Your task to perform on an android device: uninstall "Adobe Acrobat Reader: Edit PDF" Image 0: 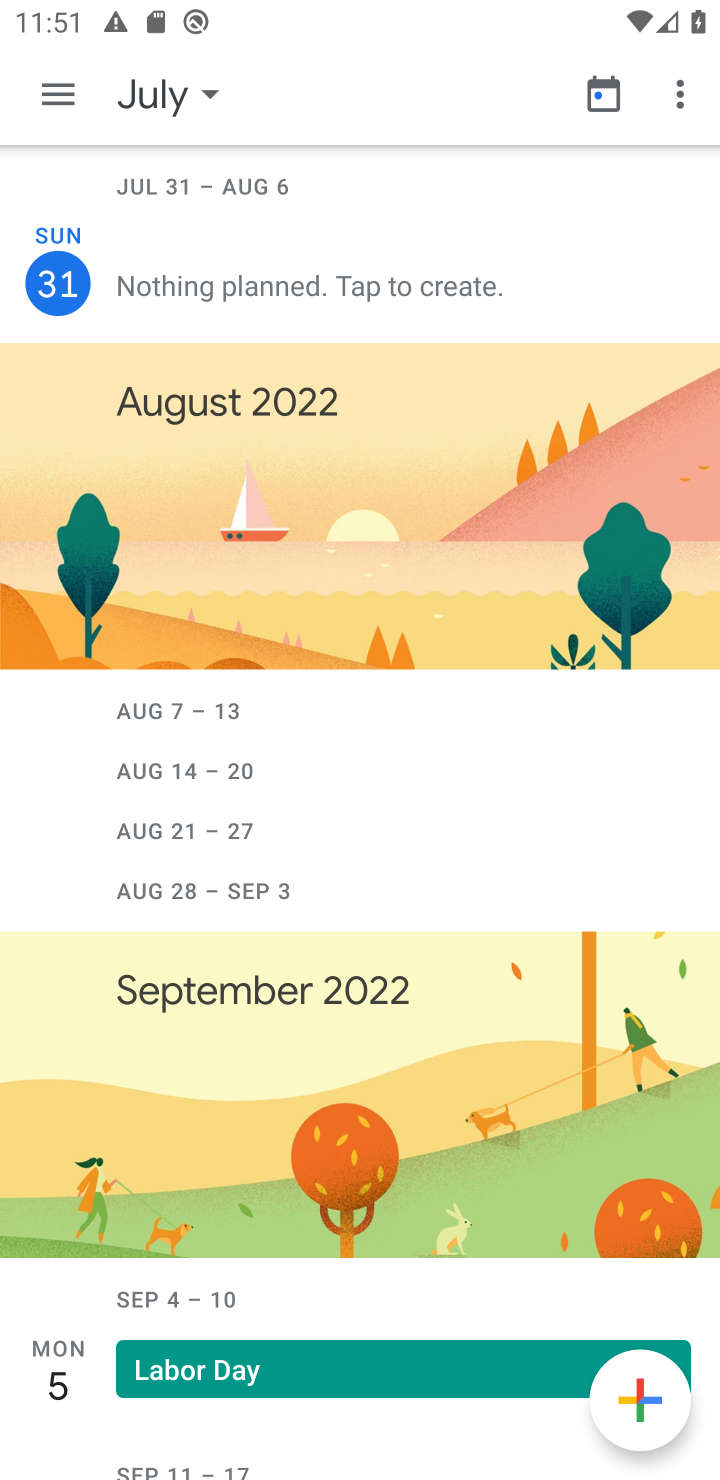
Step 0: press home button
Your task to perform on an android device: uninstall "Adobe Acrobat Reader: Edit PDF" Image 1: 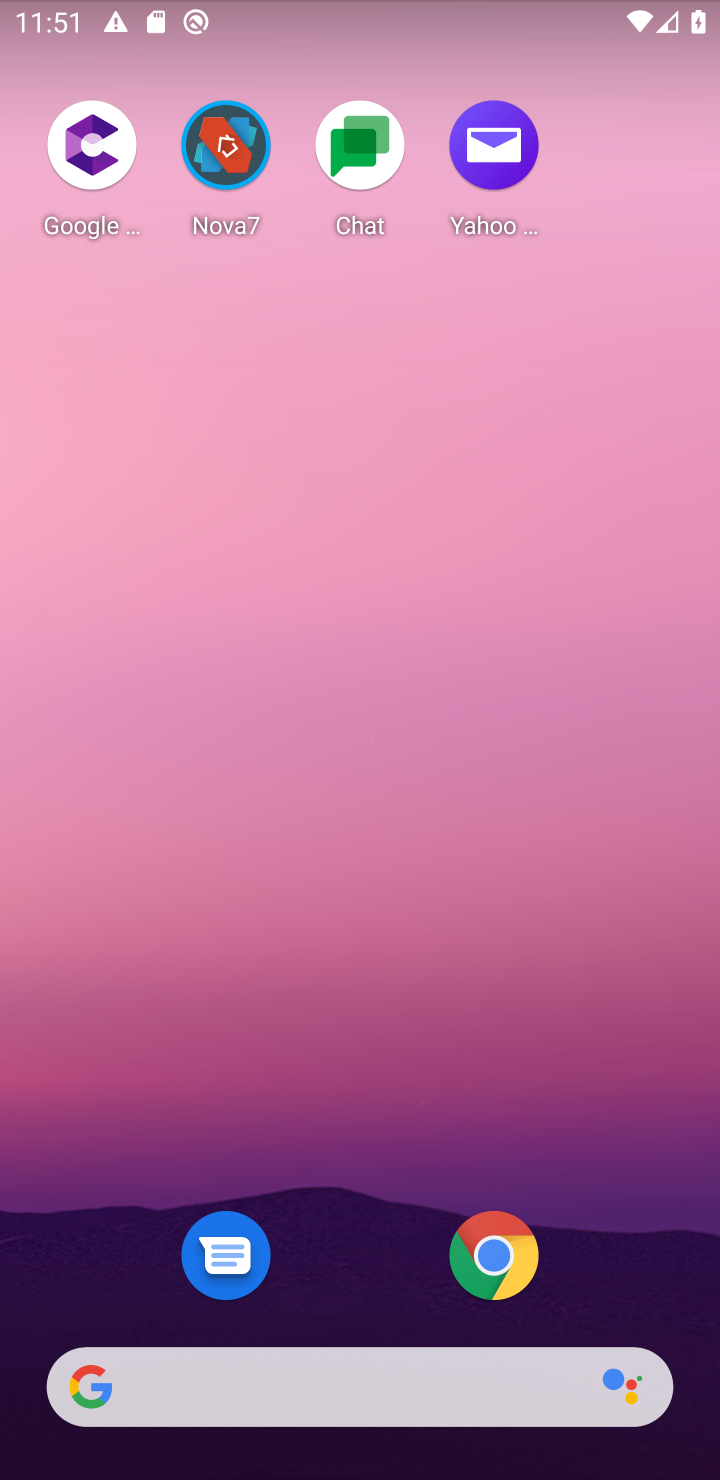
Step 1: drag from (589, 1094) to (486, 326)
Your task to perform on an android device: uninstall "Adobe Acrobat Reader: Edit PDF" Image 2: 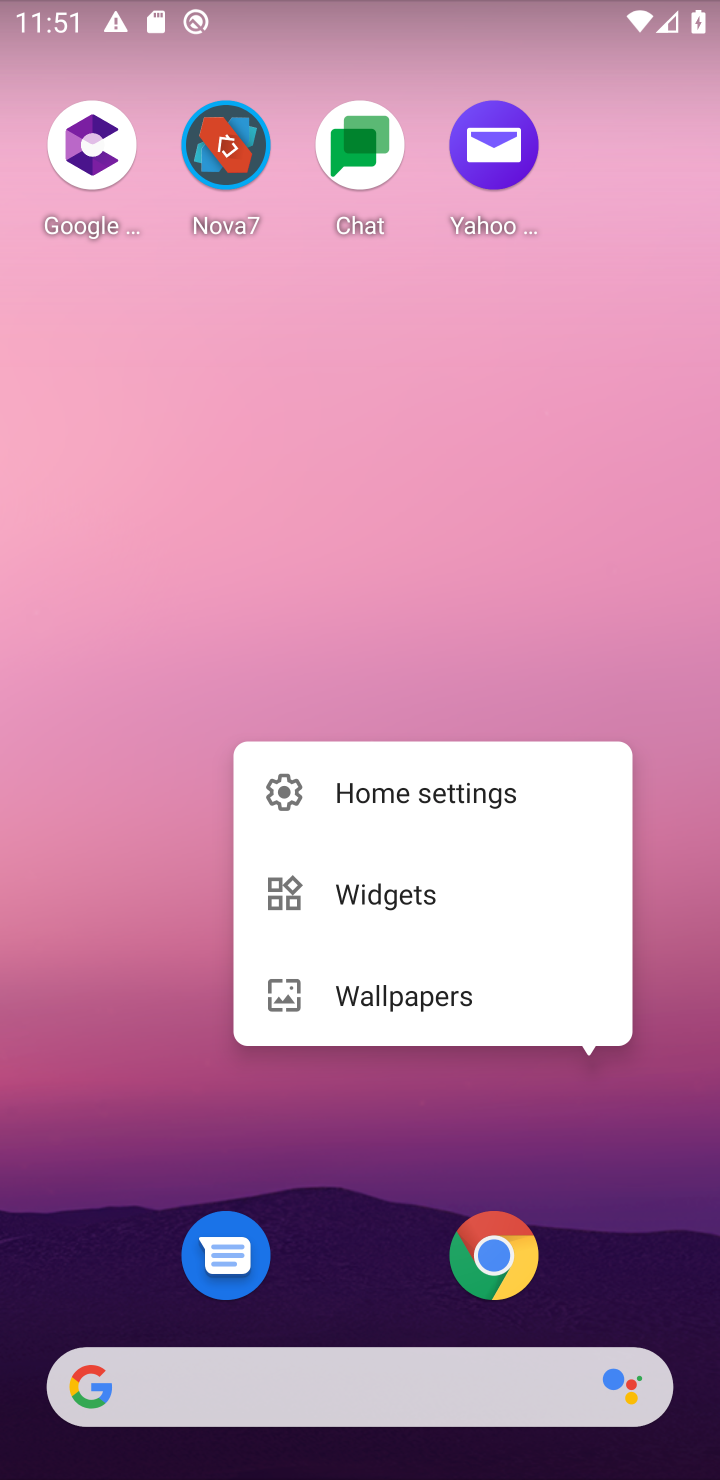
Step 2: click (442, 679)
Your task to perform on an android device: uninstall "Adobe Acrobat Reader: Edit PDF" Image 3: 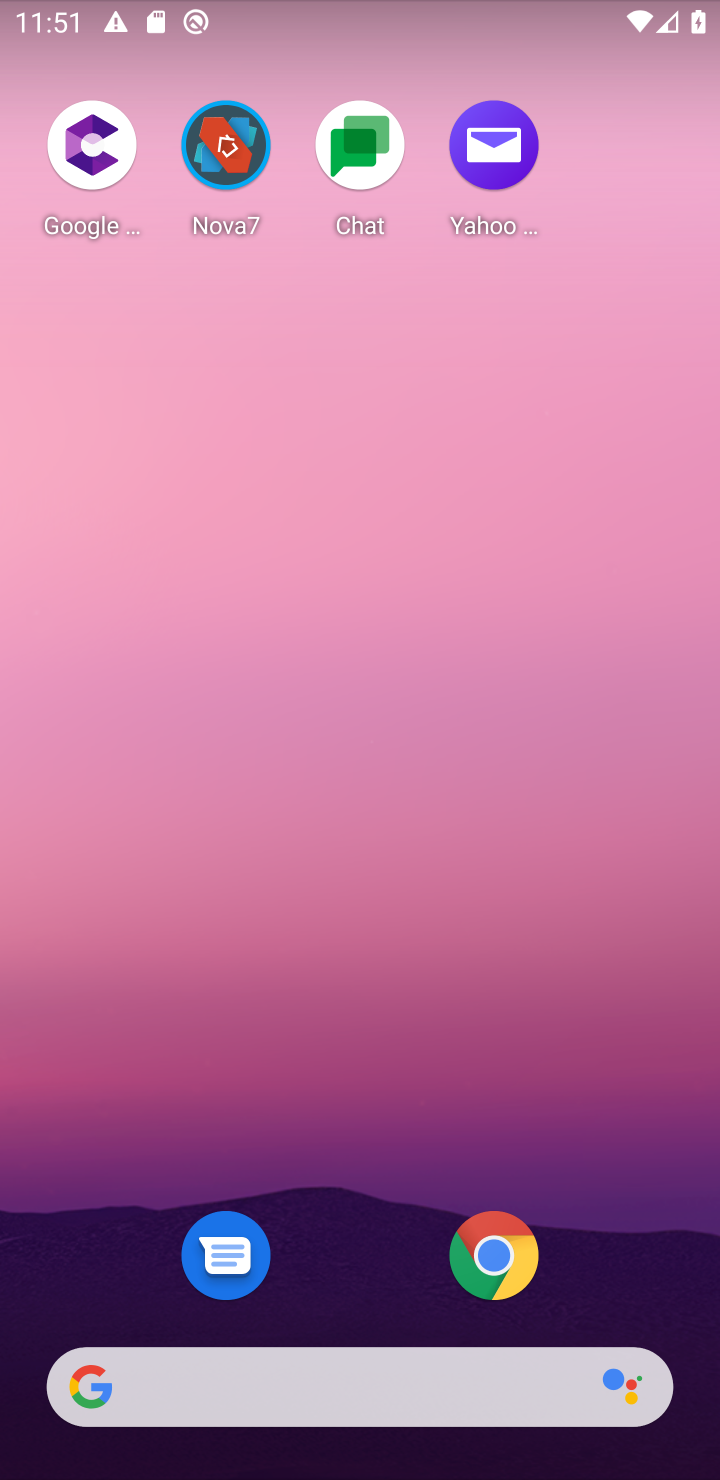
Step 3: drag from (359, 1161) to (265, 557)
Your task to perform on an android device: uninstall "Adobe Acrobat Reader: Edit PDF" Image 4: 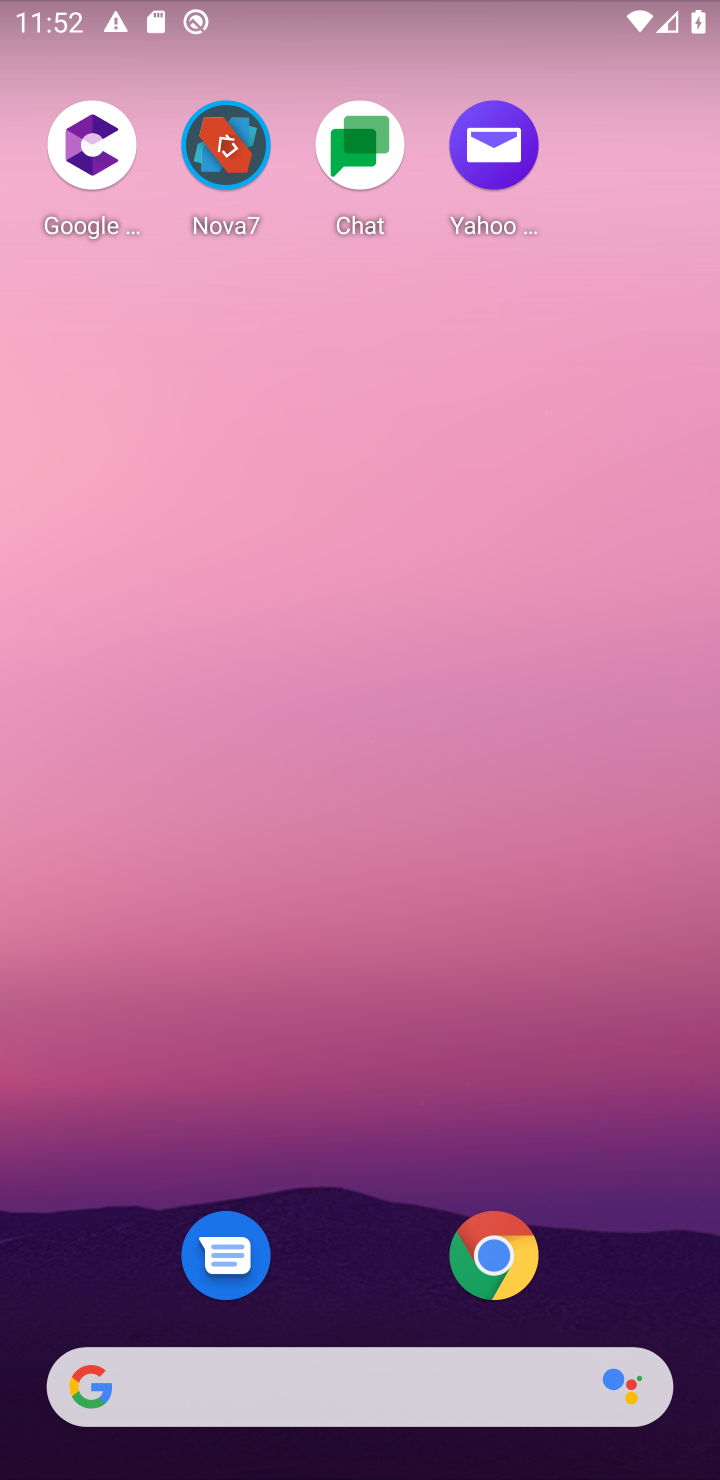
Step 4: drag from (435, 1130) to (370, 13)
Your task to perform on an android device: uninstall "Adobe Acrobat Reader: Edit PDF" Image 5: 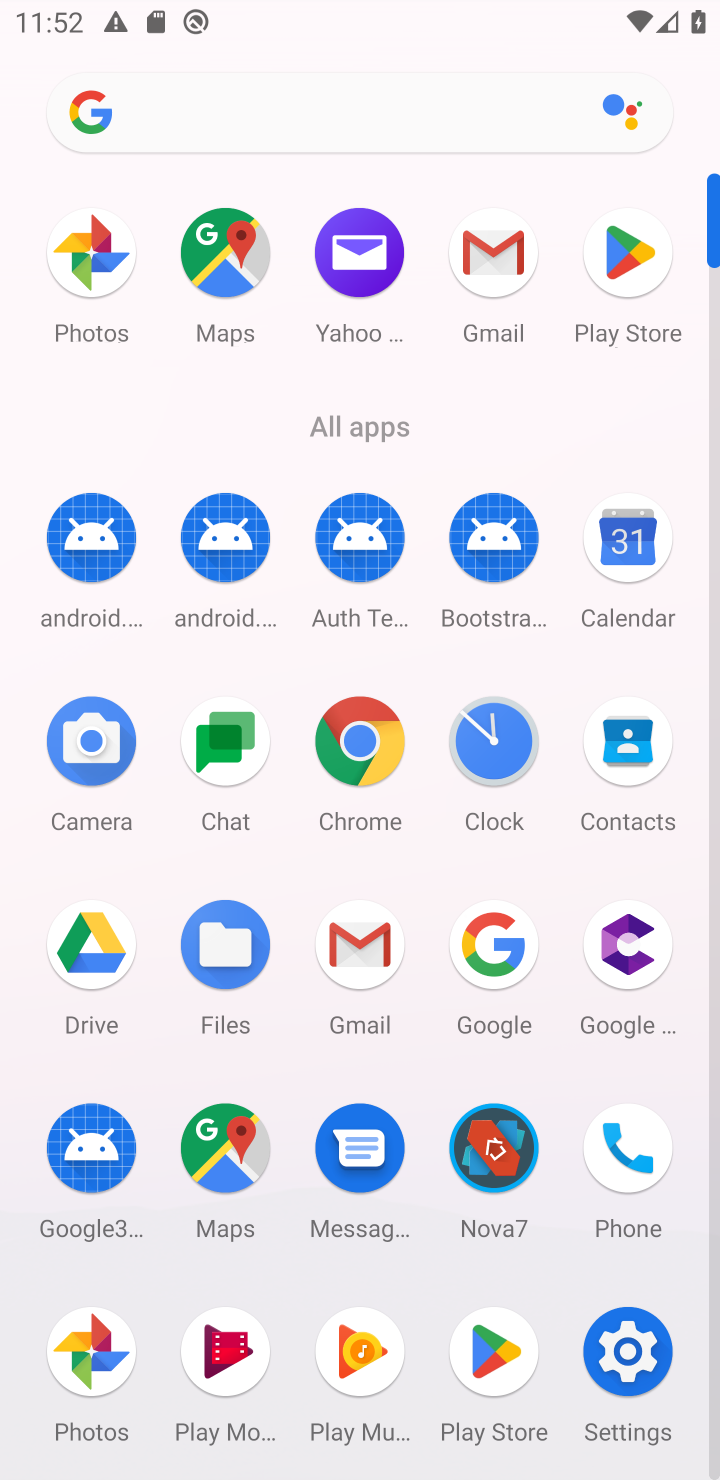
Step 5: click (633, 269)
Your task to perform on an android device: uninstall "Adobe Acrobat Reader: Edit PDF" Image 6: 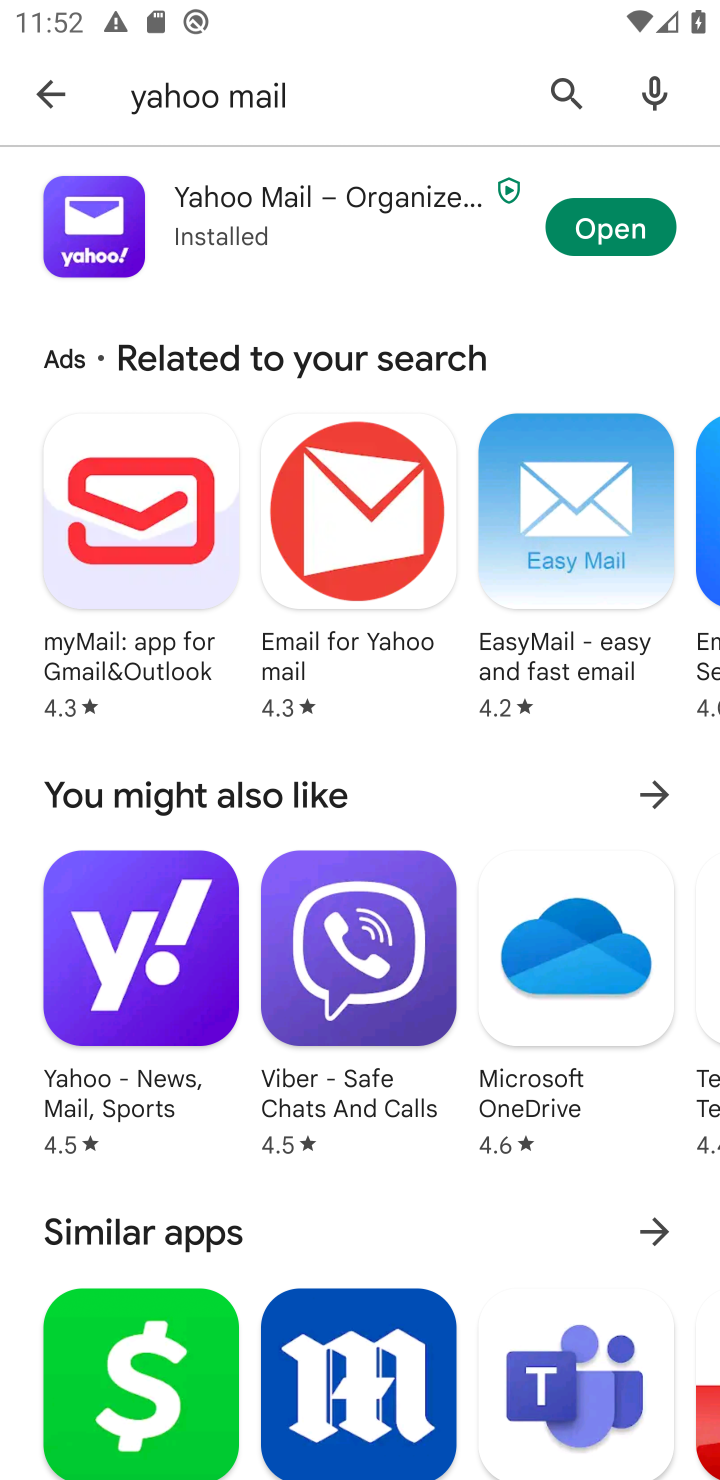
Step 6: click (552, 95)
Your task to perform on an android device: uninstall "Adobe Acrobat Reader: Edit PDF" Image 7: 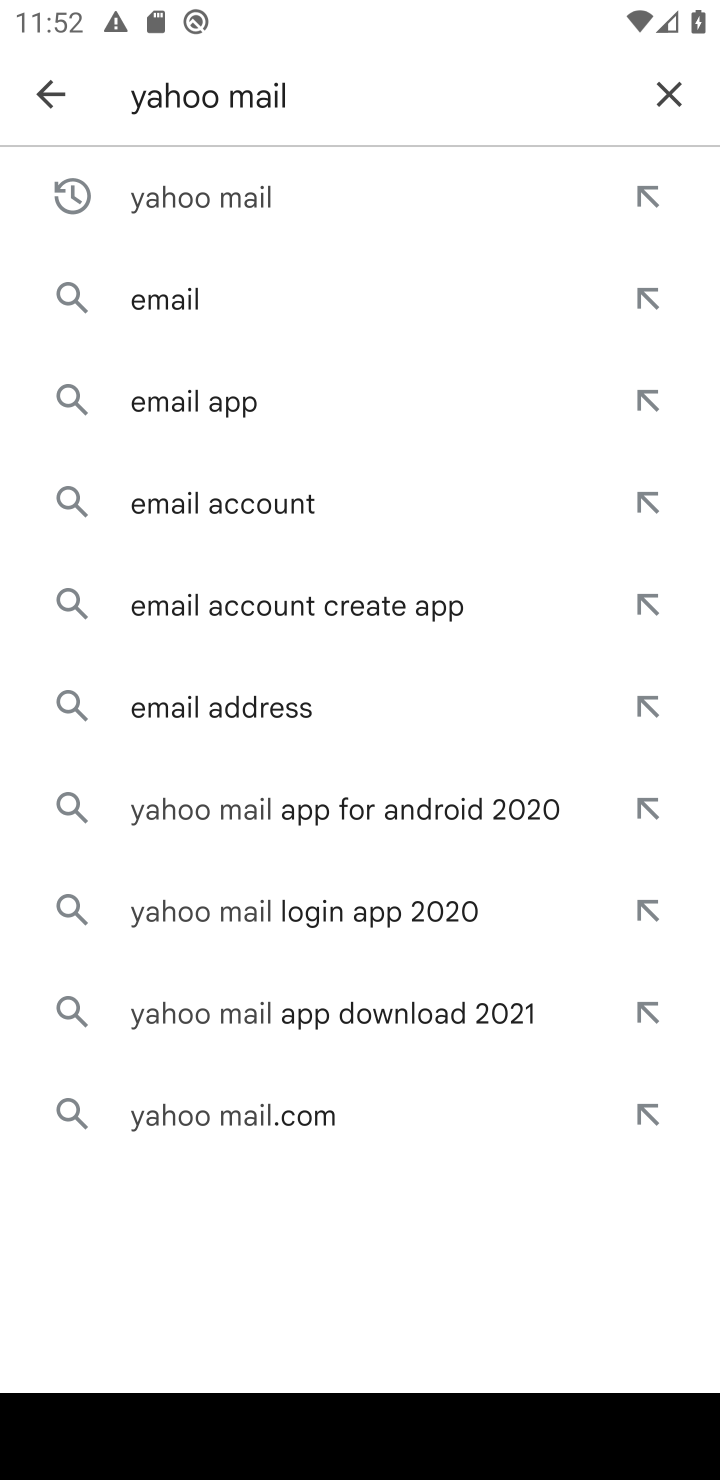
Step 7: click (682, 80)
Your task to perform on an android device: uninstall "Adobe Acrobat Reader: Edit PDF" Image 8: 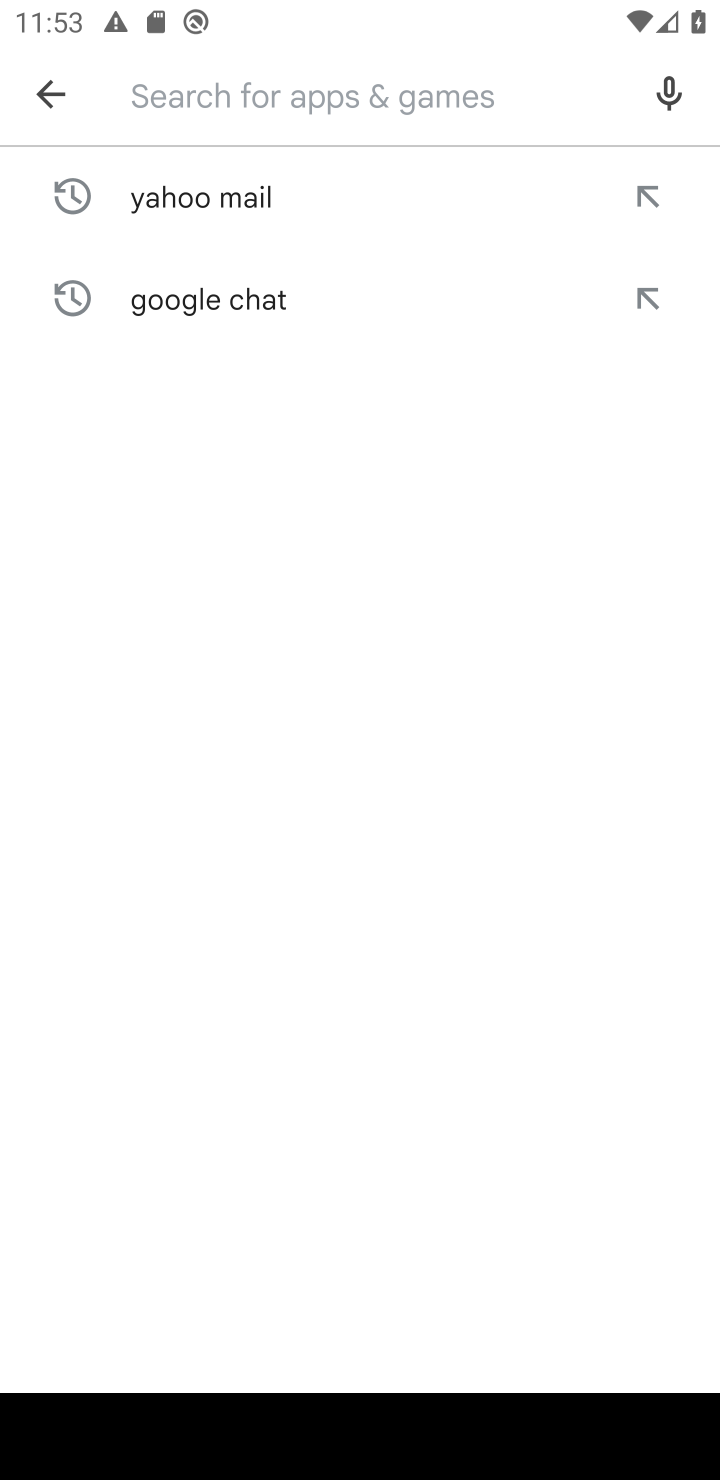
Step 8: type "adobe acrobat reader"
Your task to perform on an android device: uninstall "Adobe Acrobat Reader: Edit PDF" Image 9: 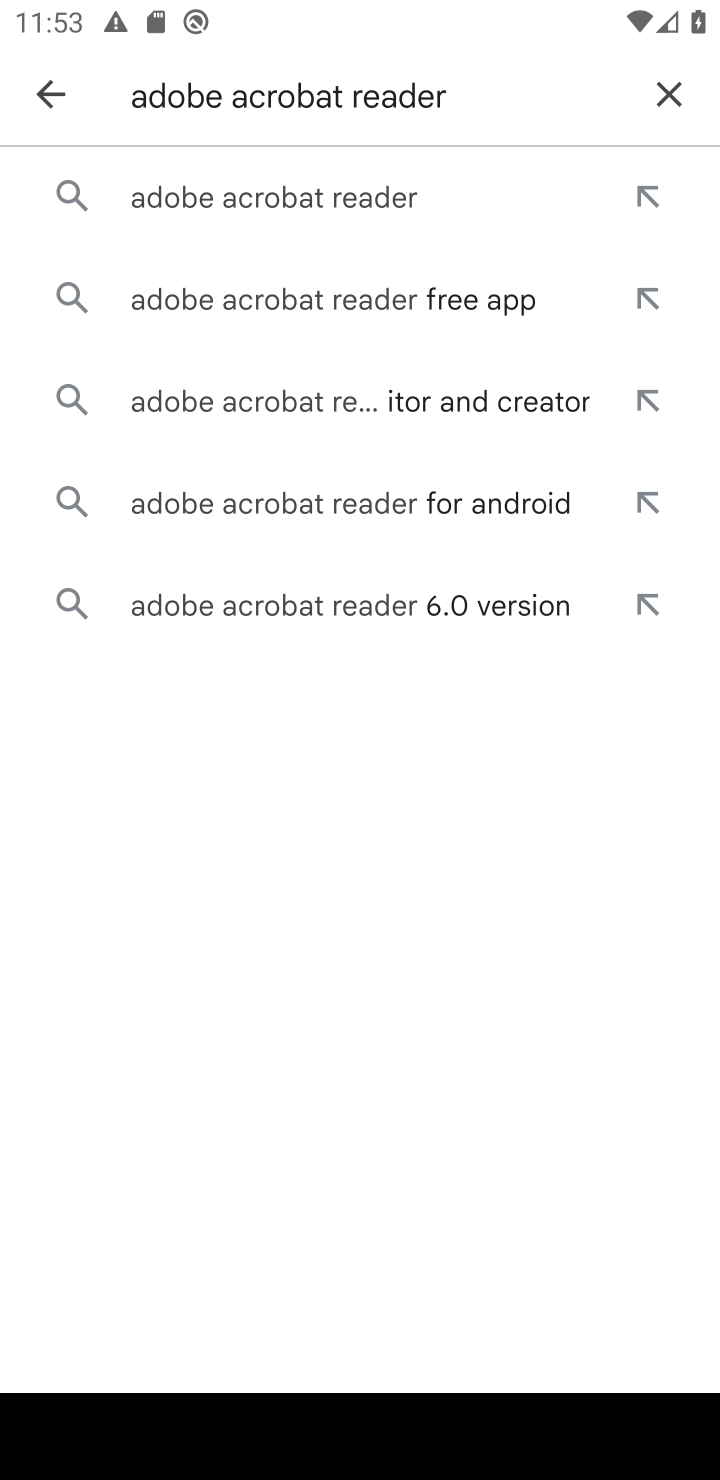
Step 9: click (507, 201)
Your task to perform on an android device: uninstall "Adobe Acrobat Reader: Edit PDF" Image 10: 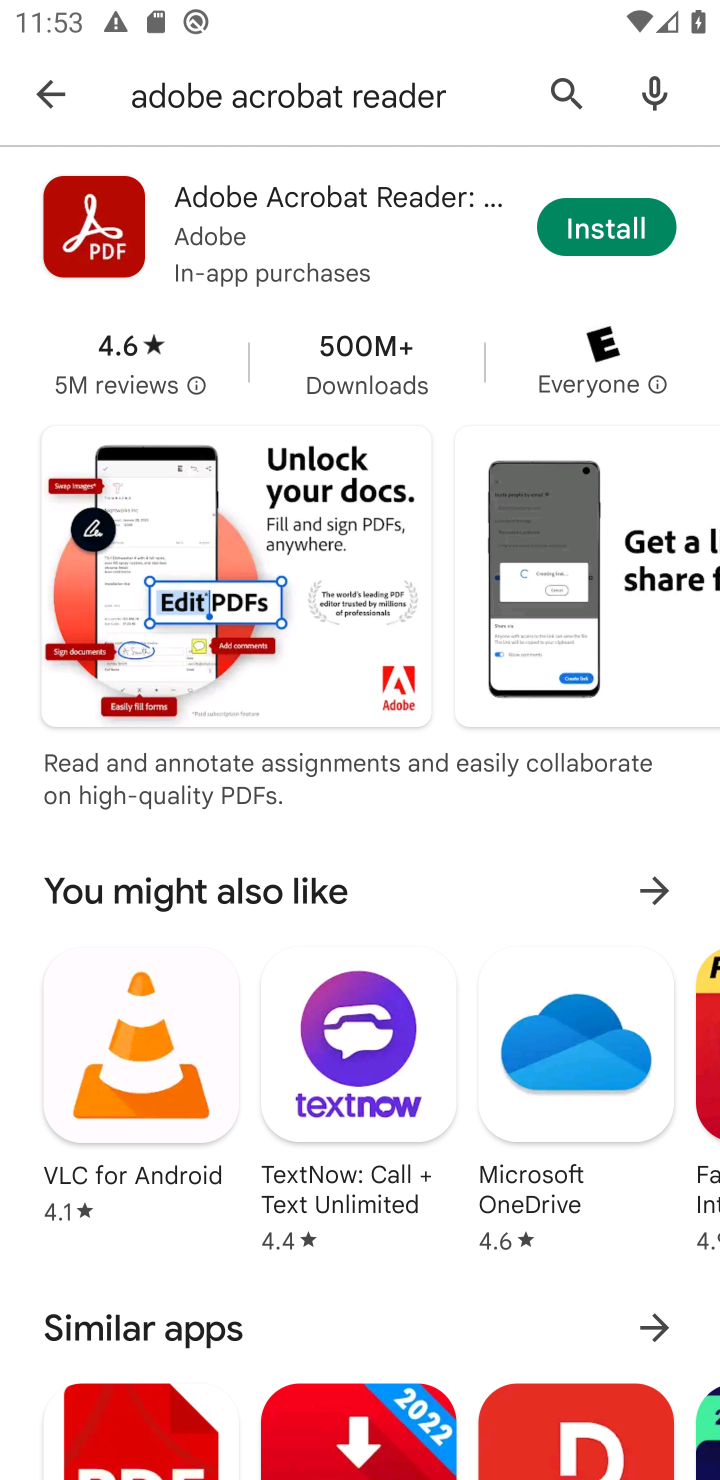
Step 10: task complete